Your task to perform on an android device: open app "Nova Launcher" (install if not already installed) Image 0: 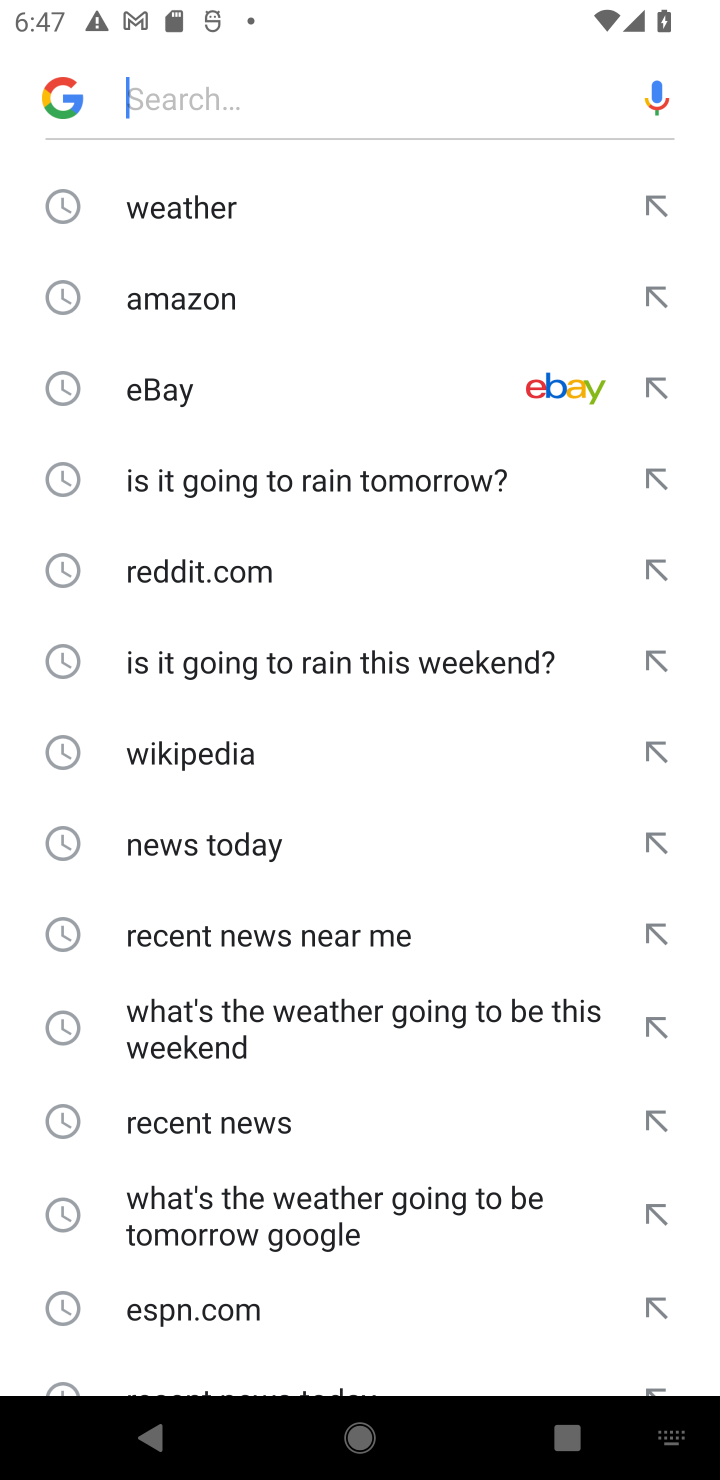
Step 0: press home button
Your task to perform on an android device: open app "Nova Launcher" (install if not already installed) Image 1: 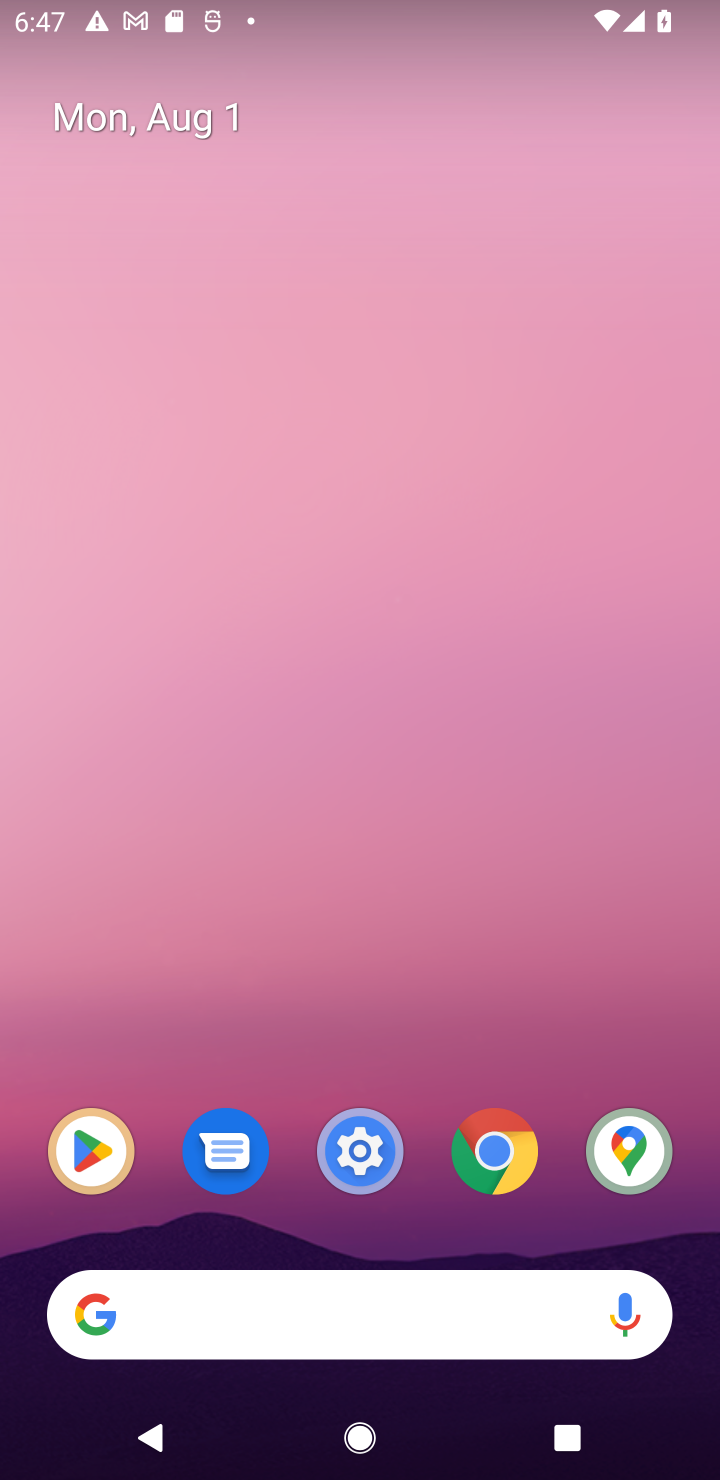
Step 1: drag from (310, 1296) to (358, 12)
Your task to perform on an android device: open app "Nova Launcher" (install if not already installed) Image 2: 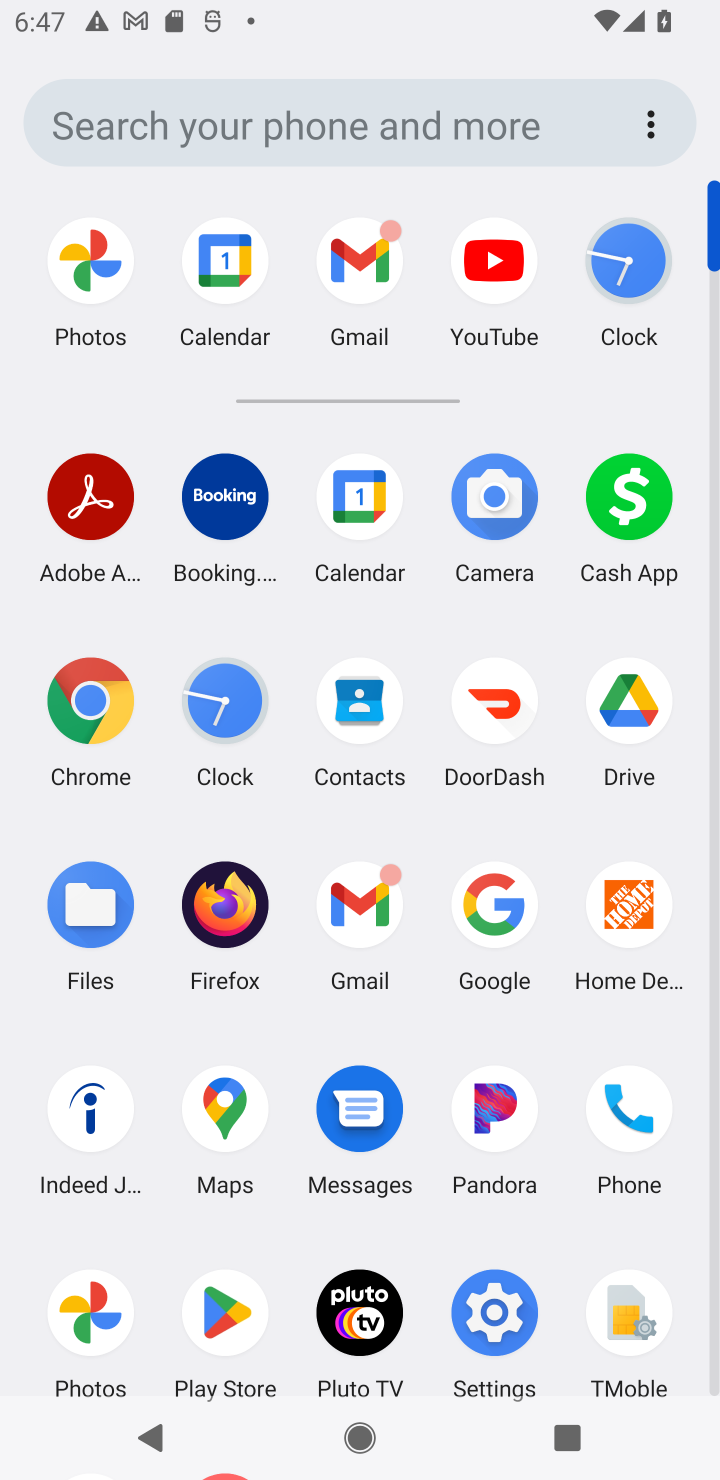
Step 2: click (219, 1304)
Your task to perform on an android device: open app "Nova Launcher" (install if not already installed) Image 3: 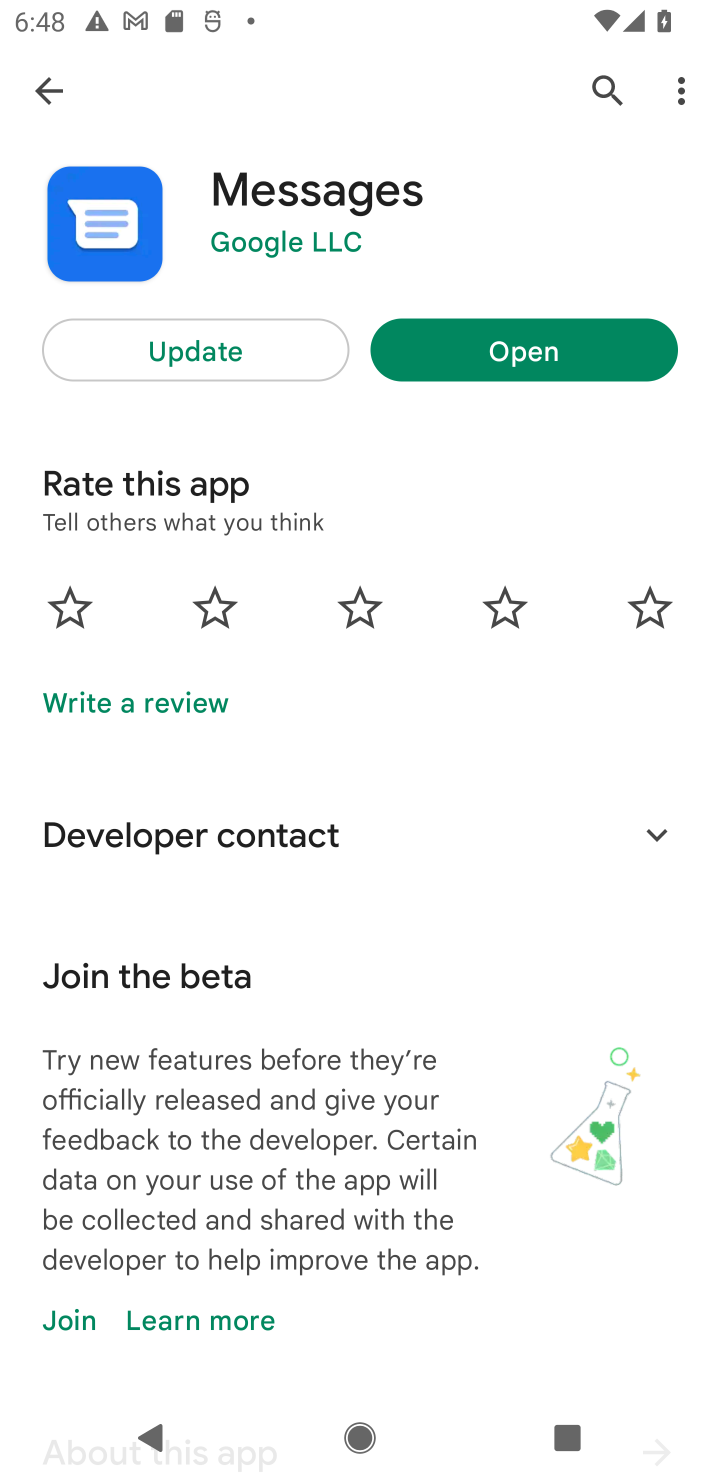
Step 3: click (607, 85)
Your task to perform on an android device: open app "Nova Launcher" (install if not already installed) Image 4: 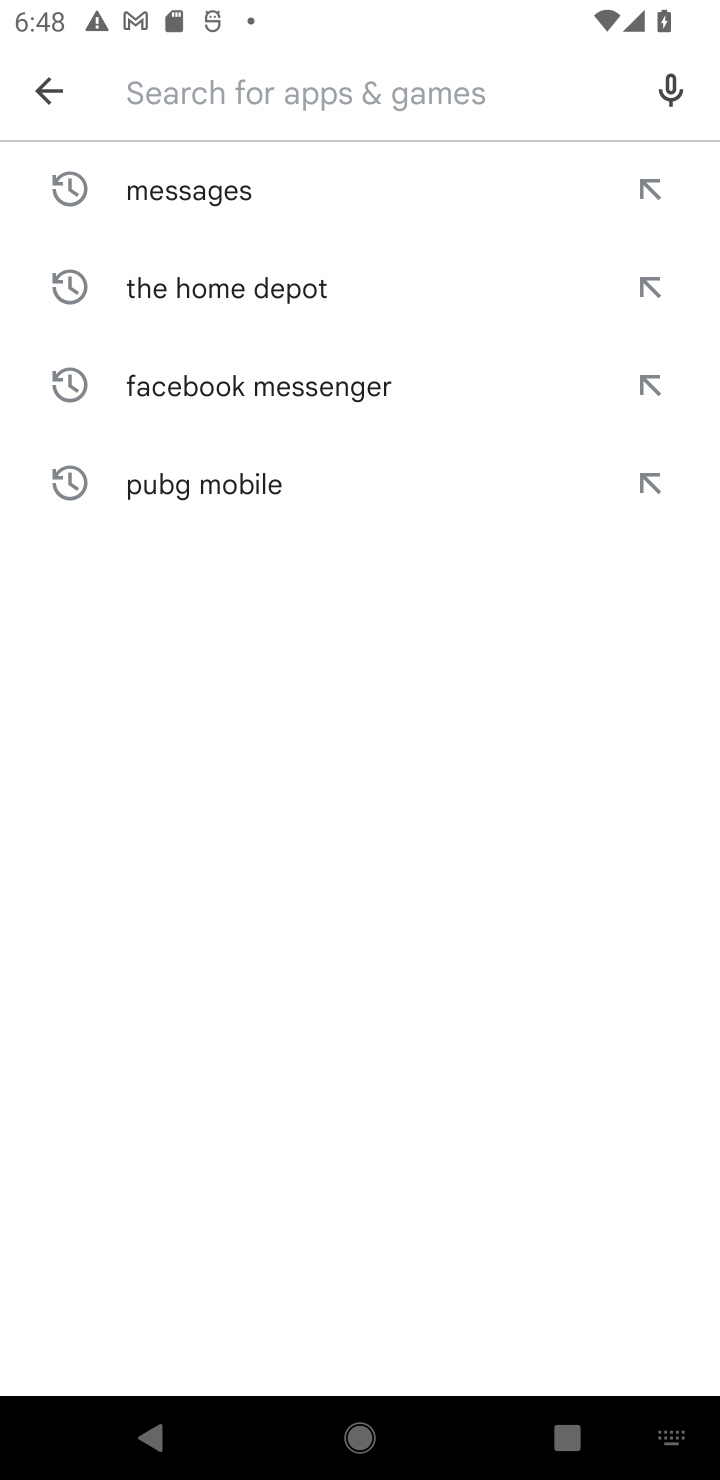
Step 4: type "nova launcher"
Your task to perform on an android device: open app "Nova Launcher" (install if not already installed) Image 5: 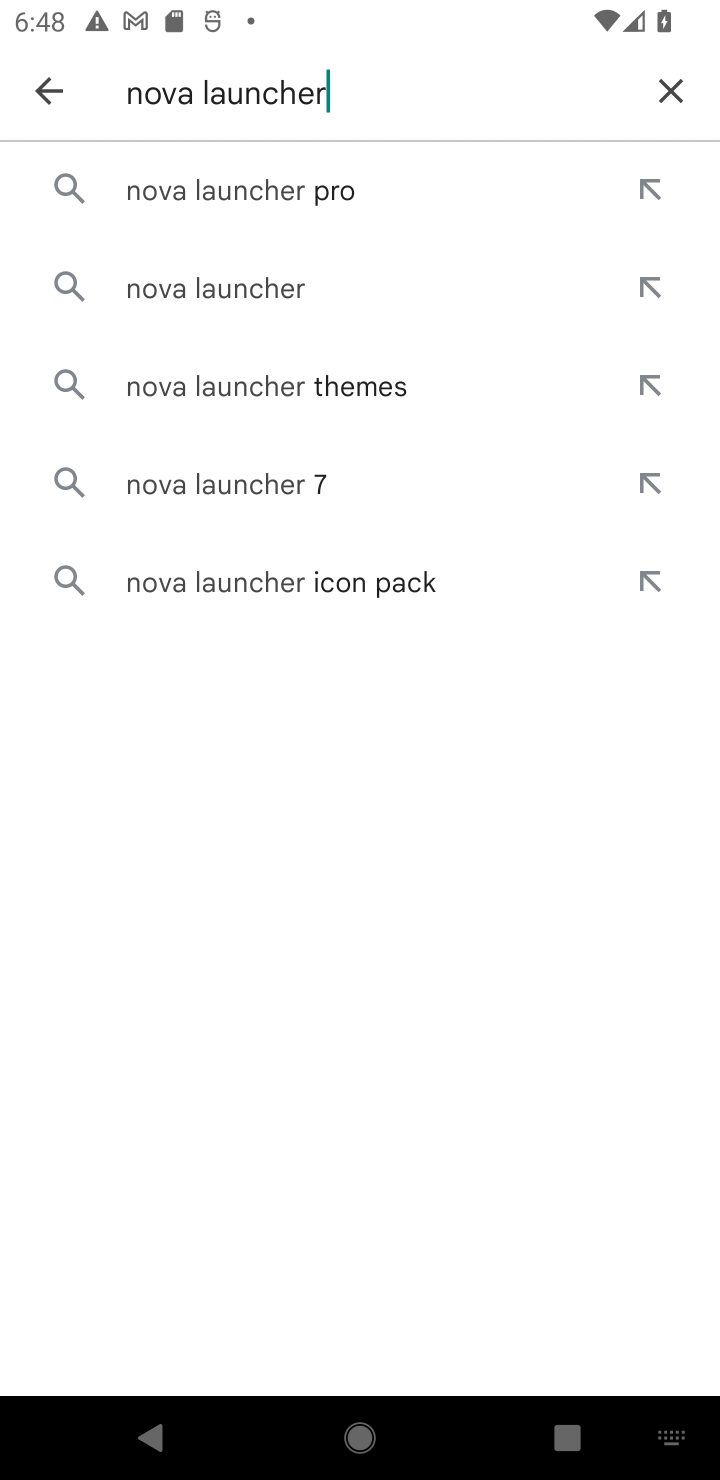
Step 5: click (268, 261)
Your task to perform on an android device: open app "Nova Launcher" (install if not already installed) Image 6: 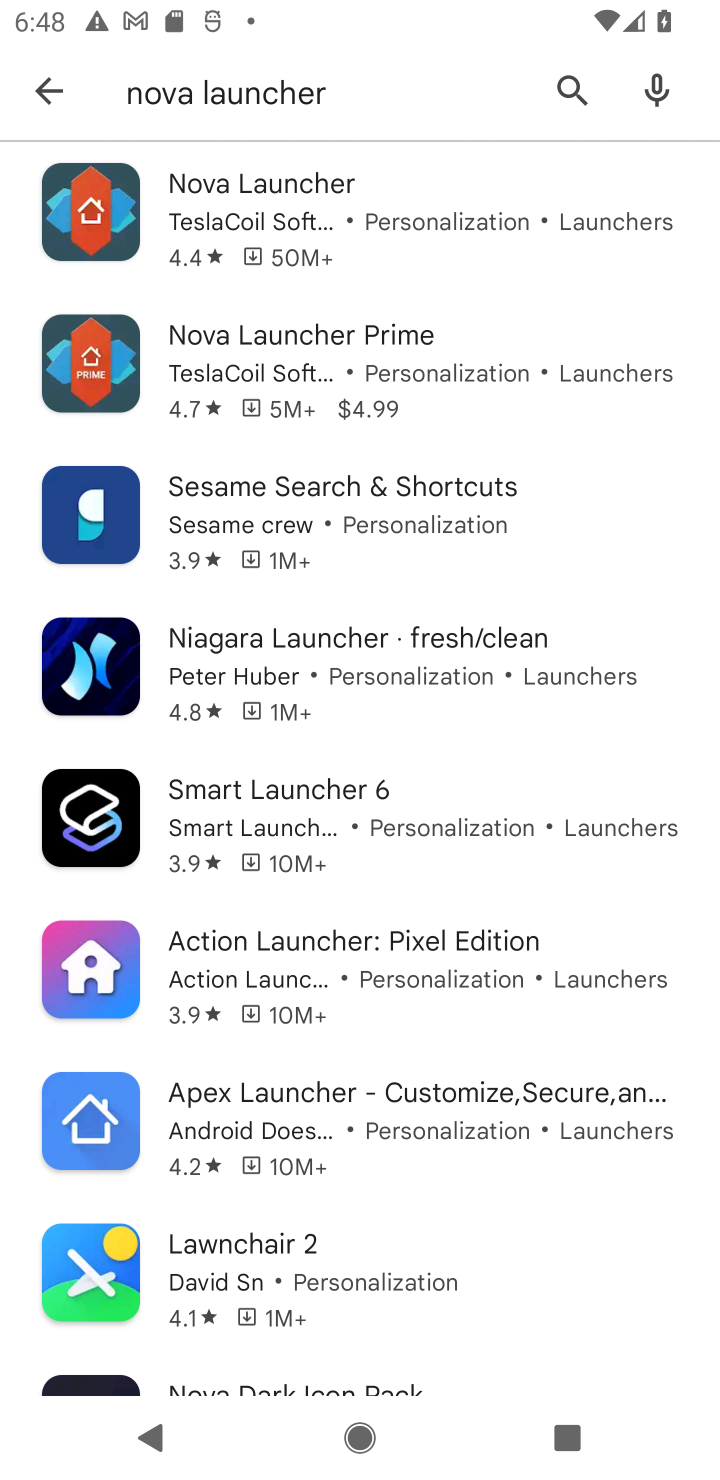
Step 6: click (260, 209)
Your task to perform on an android device: open app "Nova Launcher" (install if not already installed) Image 7: 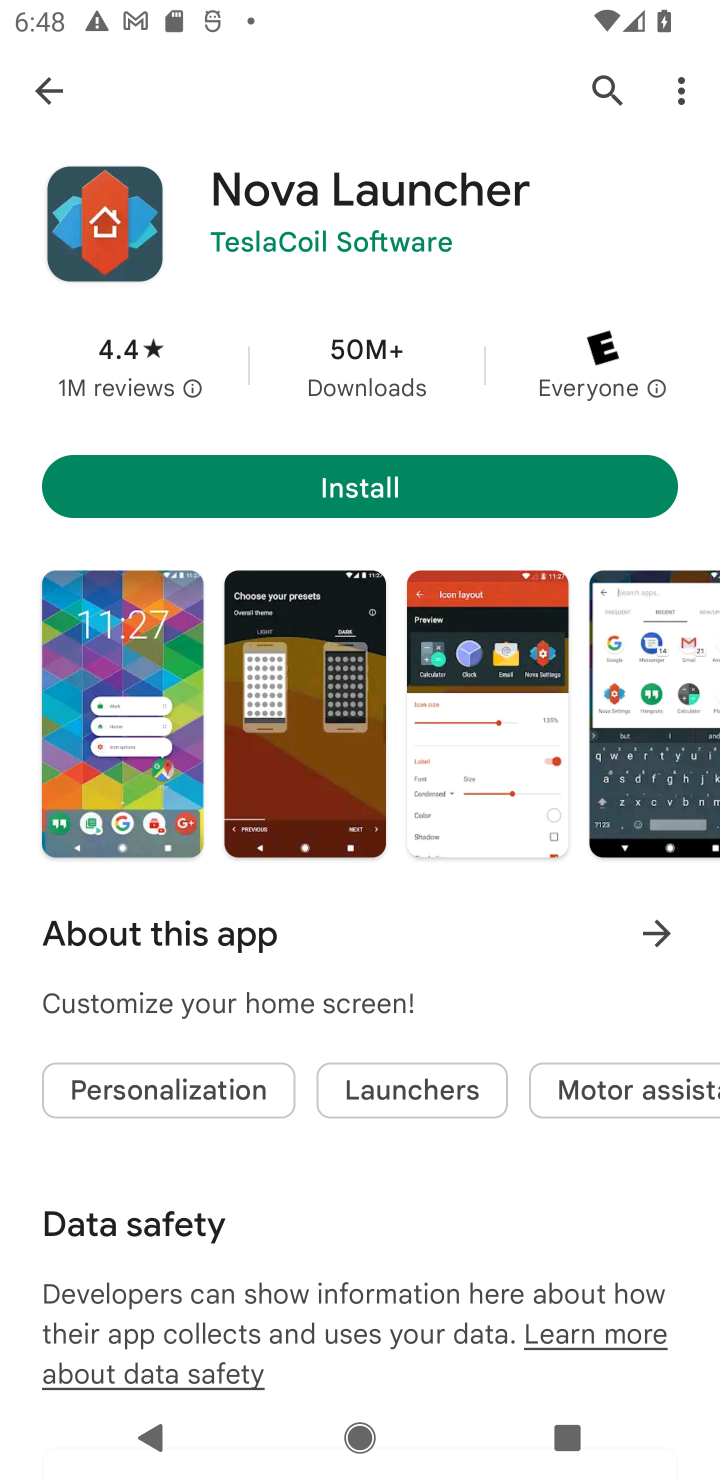
Step 7: click (396, 491)
Your task to perform on an android device: open app "Nova Launcher" (install if not already installed) Image 8: 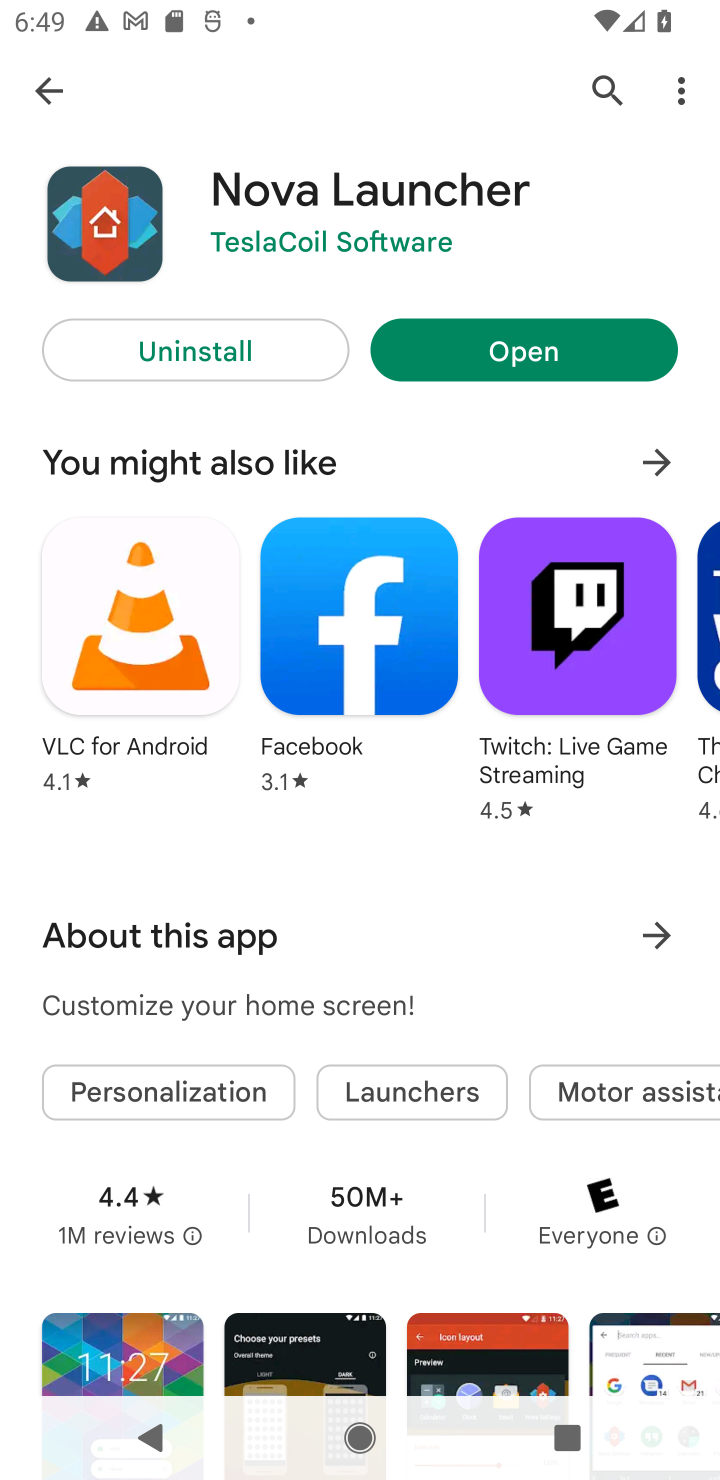
Step 8: click (551, 380)
Your task to perform on an android device: open app "Nova Launcher" (install if not already installed) Image 9: 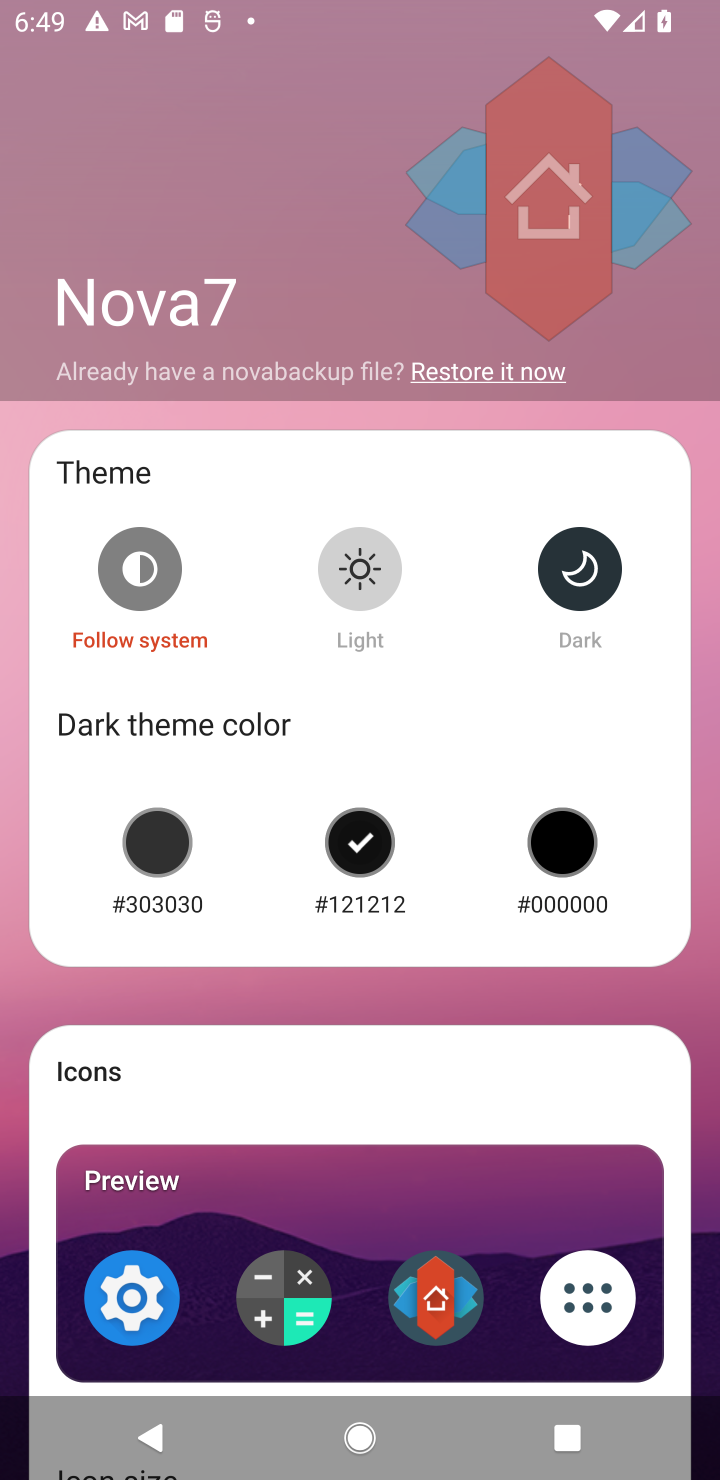
Step 9: task complete